Your task to perform on an android device: Clear all items from cart on bestbuy.com. Add razer blackwidow to the cart on bestbuy.com Image 0: 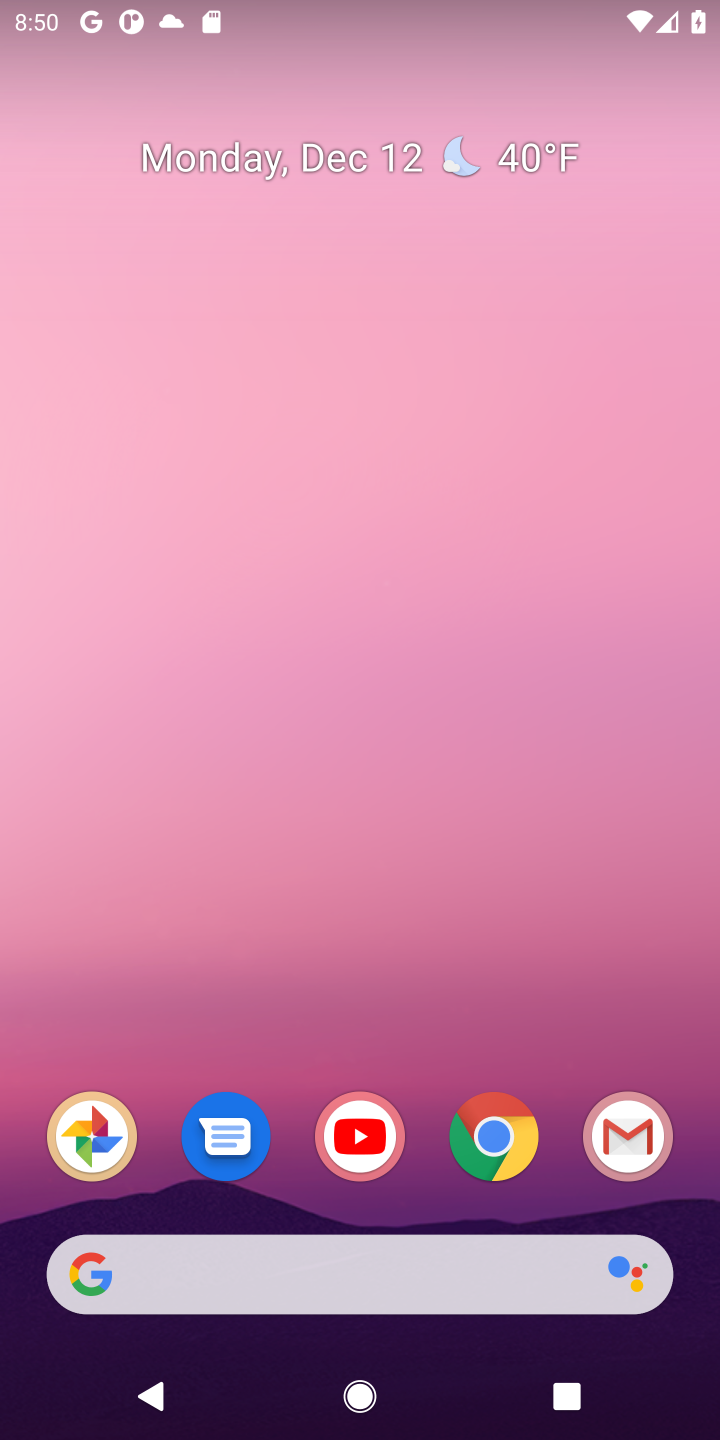
Step 0: click (492, 1150)
Your task to perform on an android device: Clear all items from cart on bestbuy.com. Add razer blackwidow to the cart on bestbuy.com Image 1: 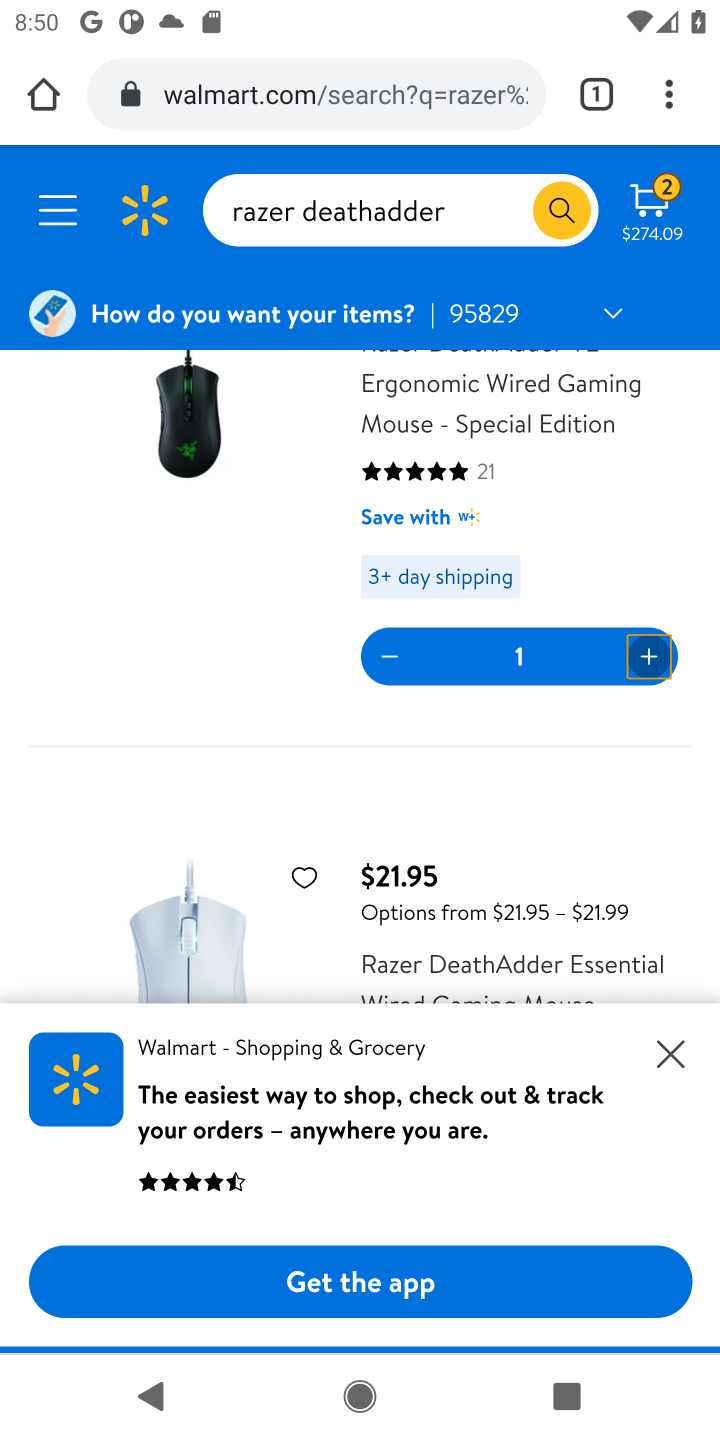
Step 1: click (317, 107)
Your task to perform on an android device: Clear all items from cart on bestbuy.com. Add razer blackwidow to the cart on bestbuy.com Image 2: 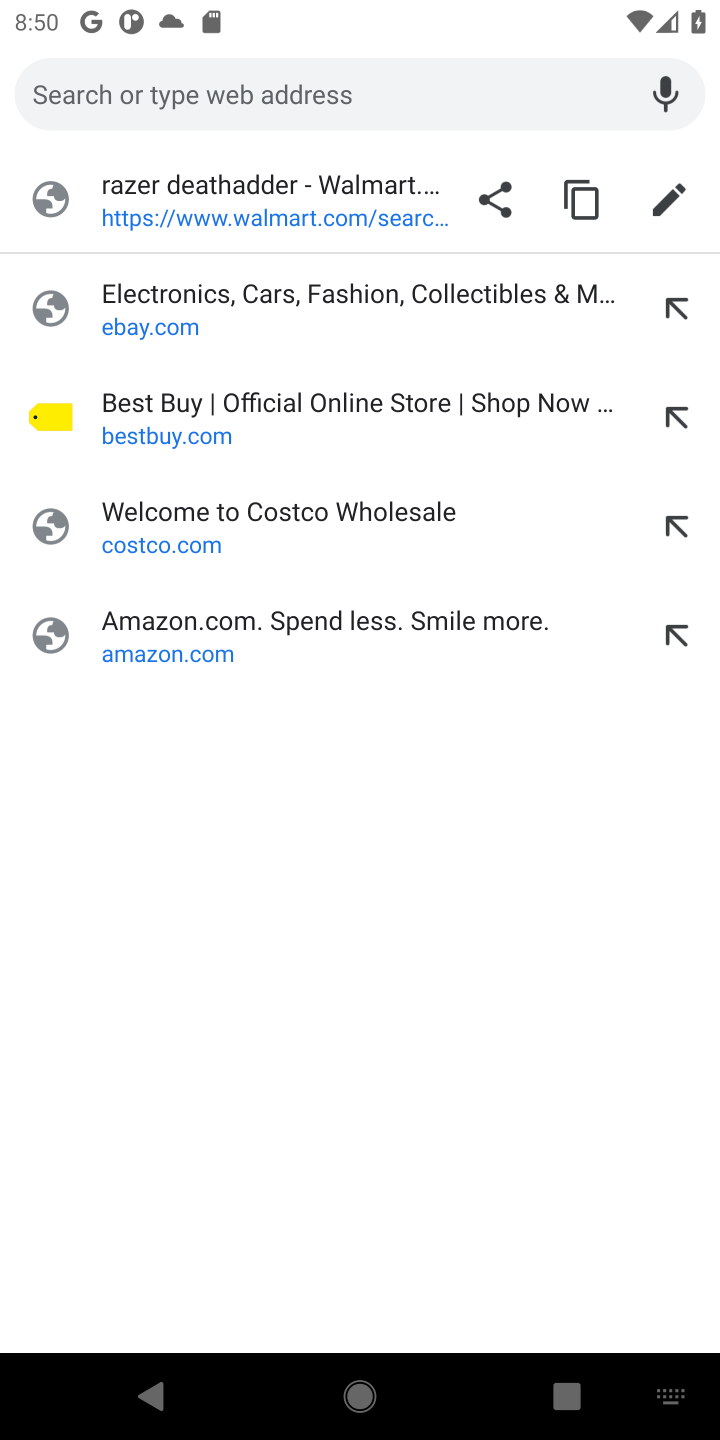
Step 2: click (147, 433)
Your task to perform on an android device: Clear all items from cart on bestbuy.com. Add razer blackwidow to the cart on bestbuy.com Image 3: 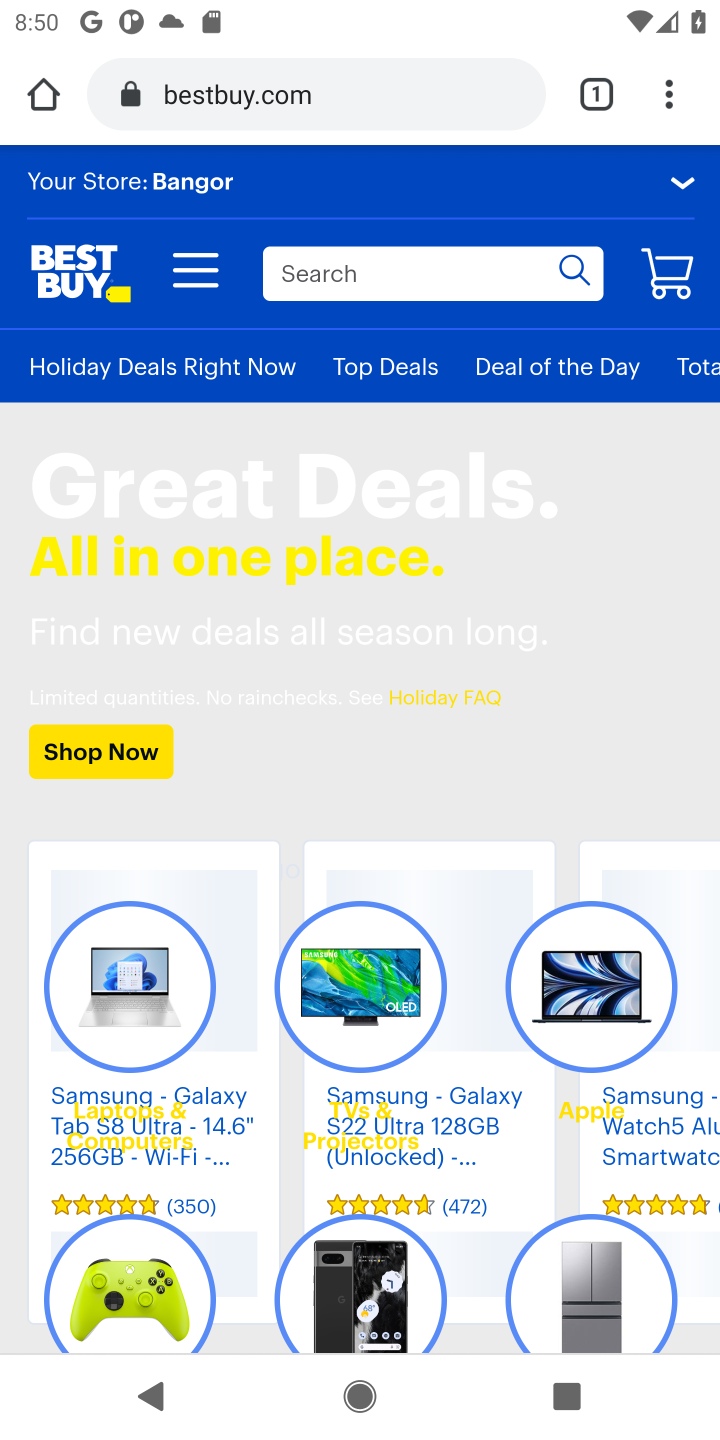
Step 3: click (671, 293)
Your task to perform on an android device: Clear all items from cart on bestbuy.com. Add razer blackwidow to the cart on bestbuy.com Image 4: 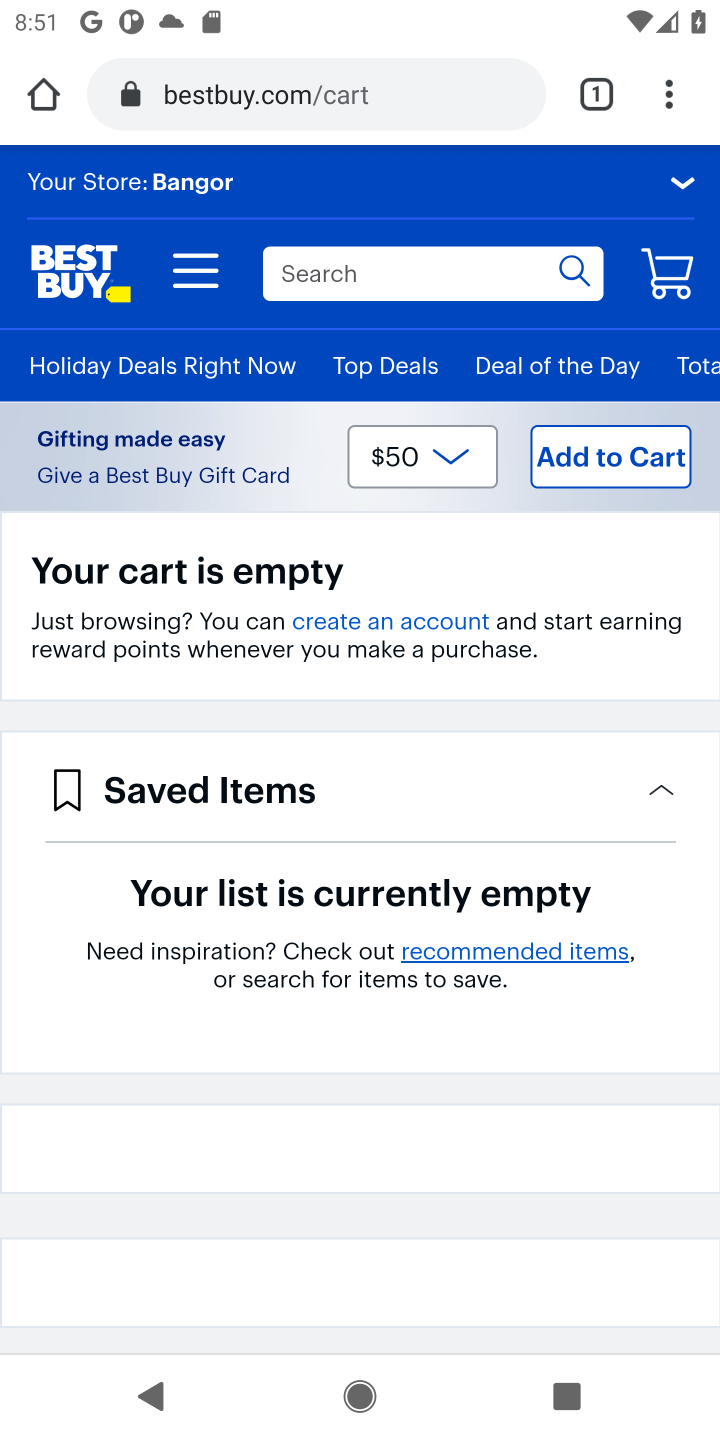
Step 4: click (341, 272)
Your task to perform on an android device: Clear all items from cart on bestbuy.com. Add razer blackwidow to the cart on bestbuy.com Image 5: 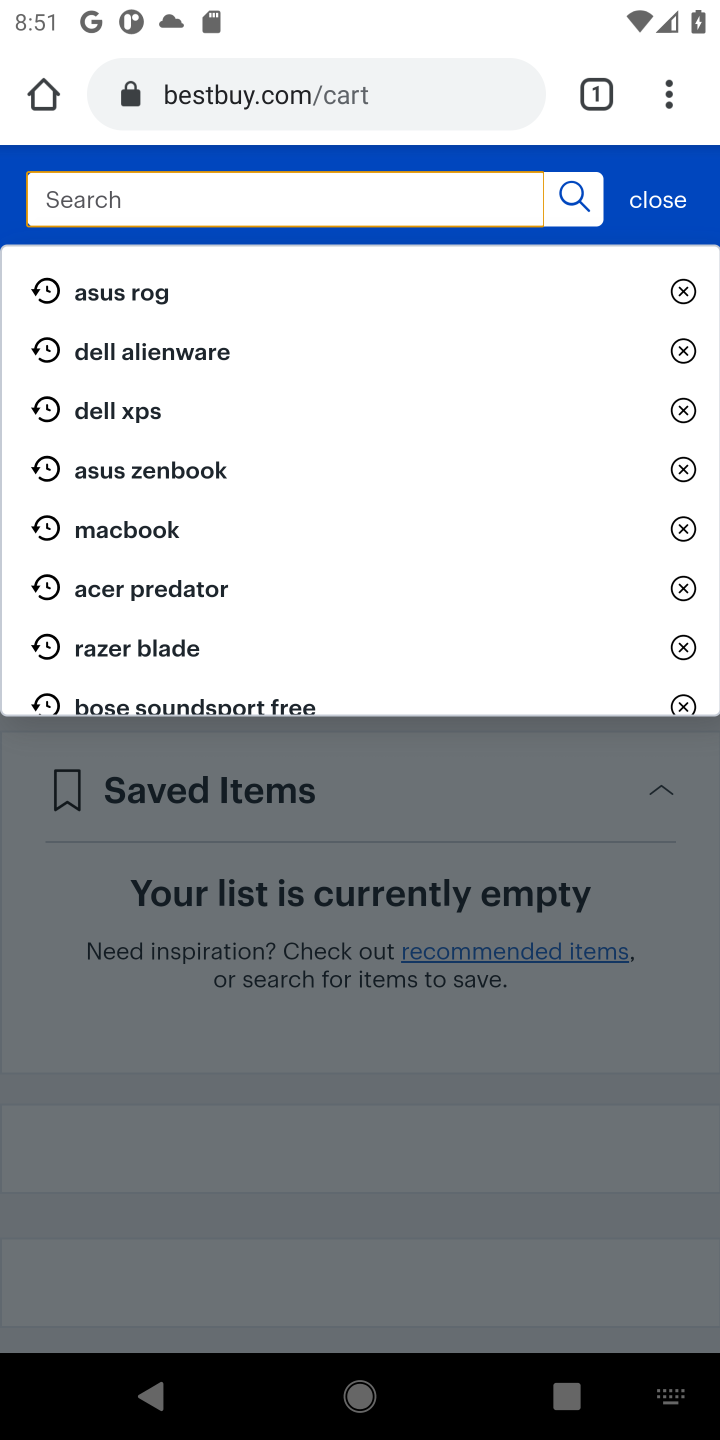
Step 5: type "razer blackwidow"
Your task to perform on an android device: Clear all items from cart on bestbuy.com. Add razer blackwidow to the cart on bestbuy.com Image 6: 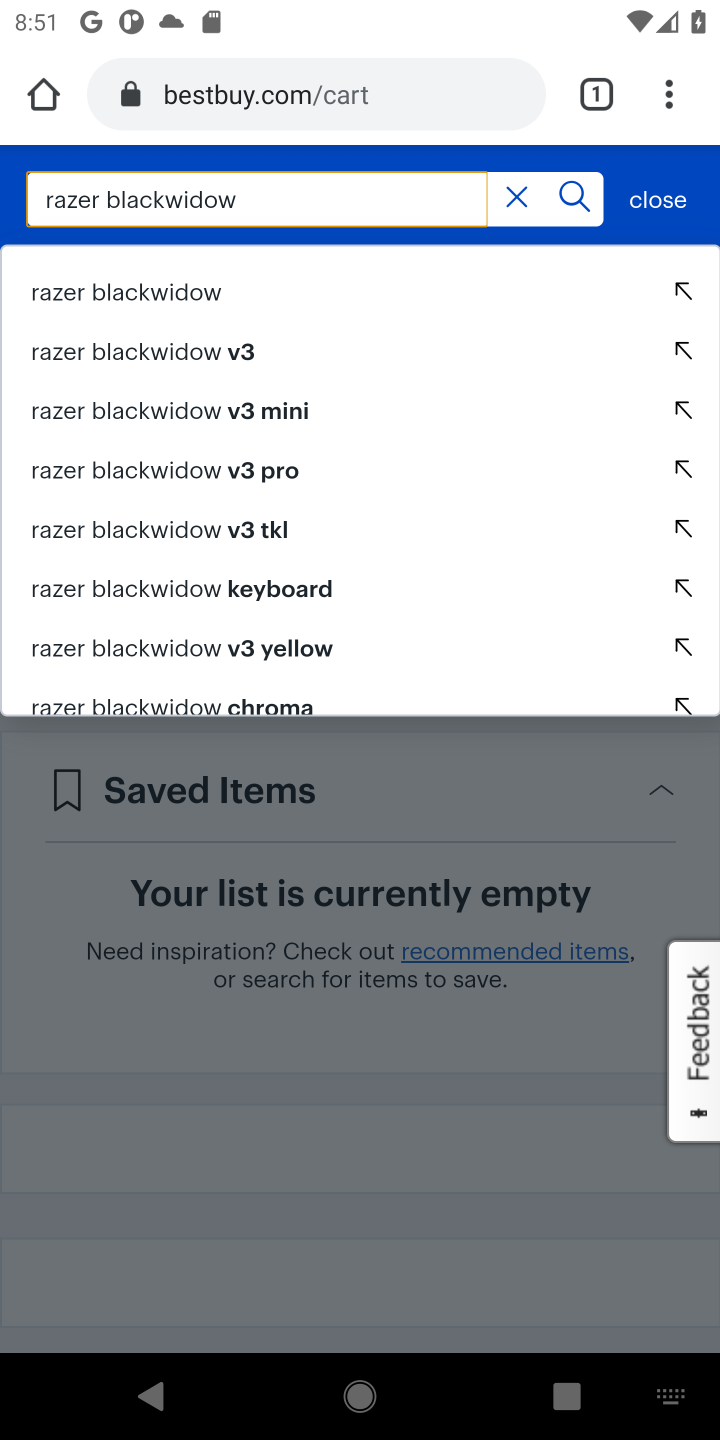
Step 6: click (138, 291)
Your task to perform on an android device: Clear all items from cart on bestbuy.com. Add razer blackwidow to the cart on bestbuy.com Image 7: 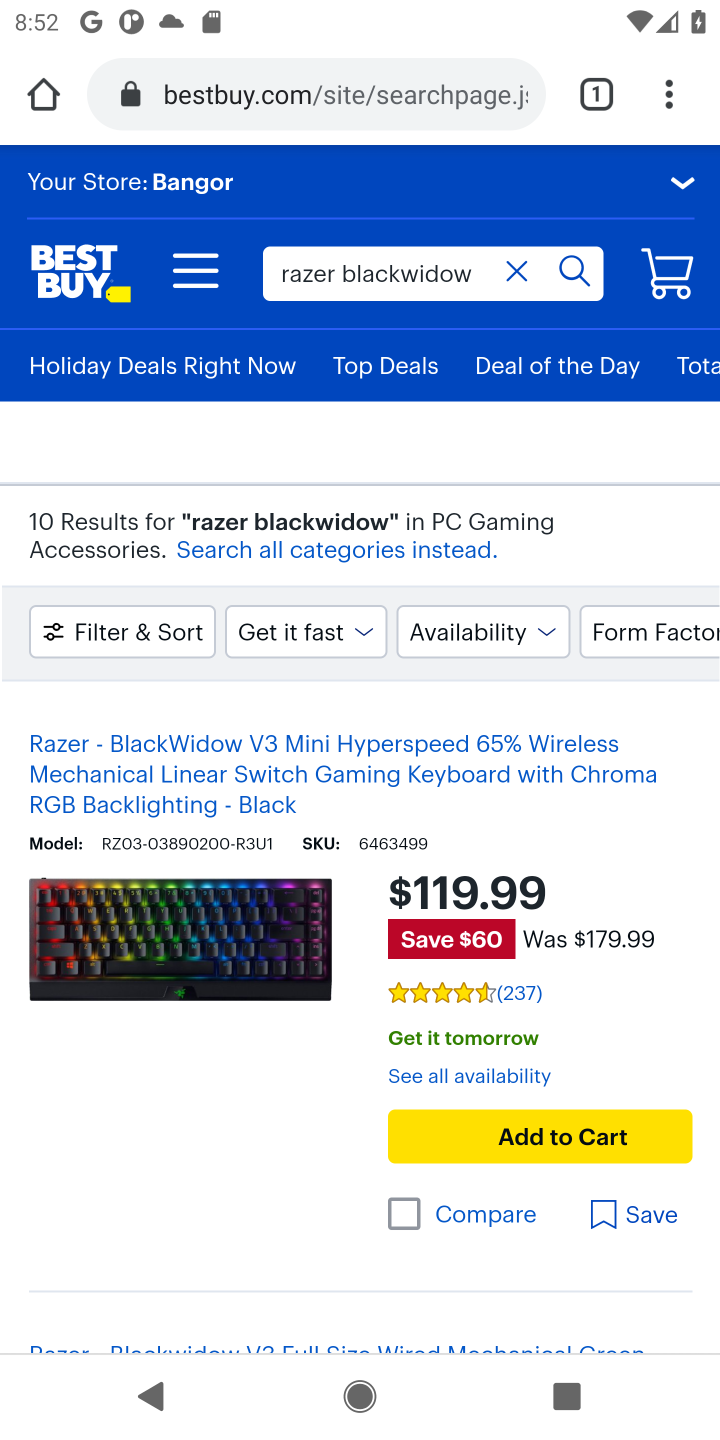
Step 7: click (477, 1049)
Your task to perform on an android device: Clear all items from cart on bestbuy.com. Add razer blackwidow to the cart on bestbuy.com Image 8: 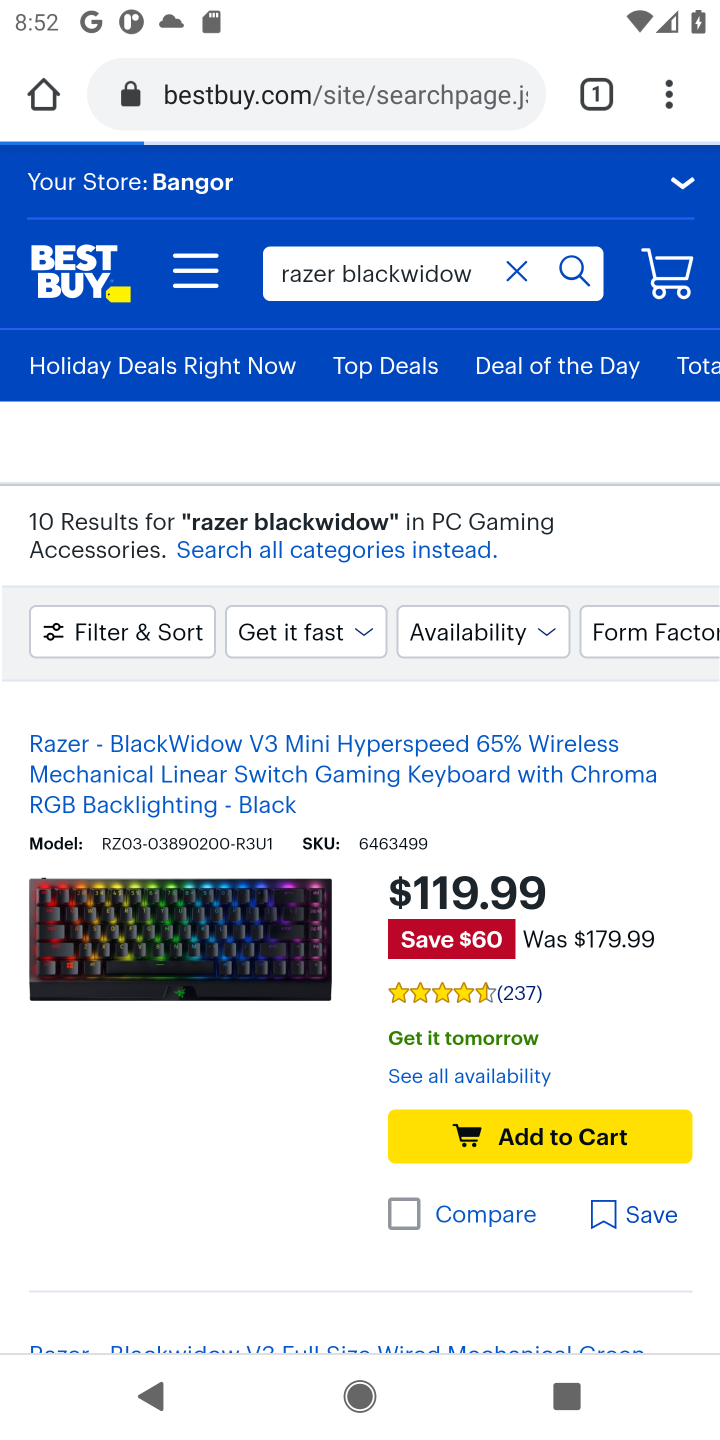
Step 8: click (459, 1189)
Your task to perform on an android device: Clear all items from cart on bestbuy.com. Add razer blackwidow to the cart on bestbuy.com Image 9: 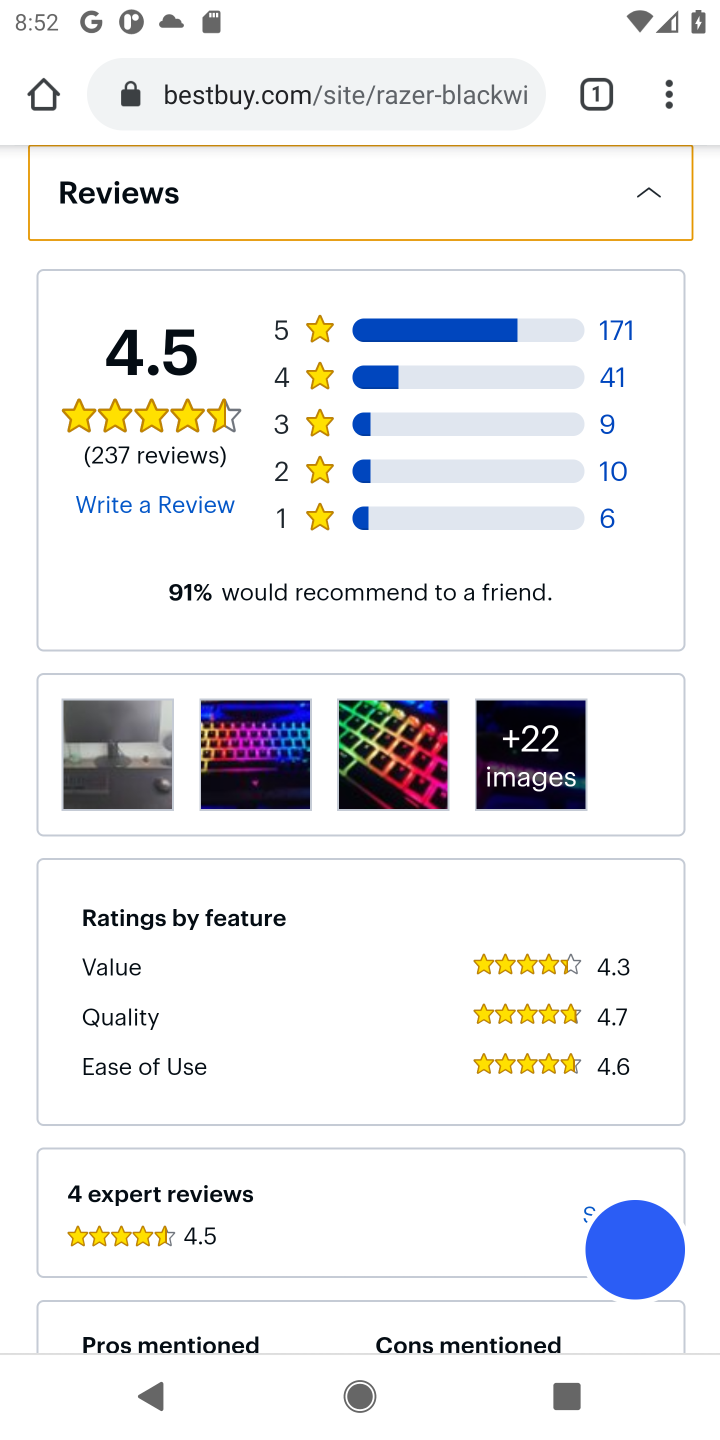
Step 9: press back button
Your task to perform on an android device: Clear all items from cart on bestbuy.com. Add razer blackwidow to the cart on bestbuy.com Image 10: 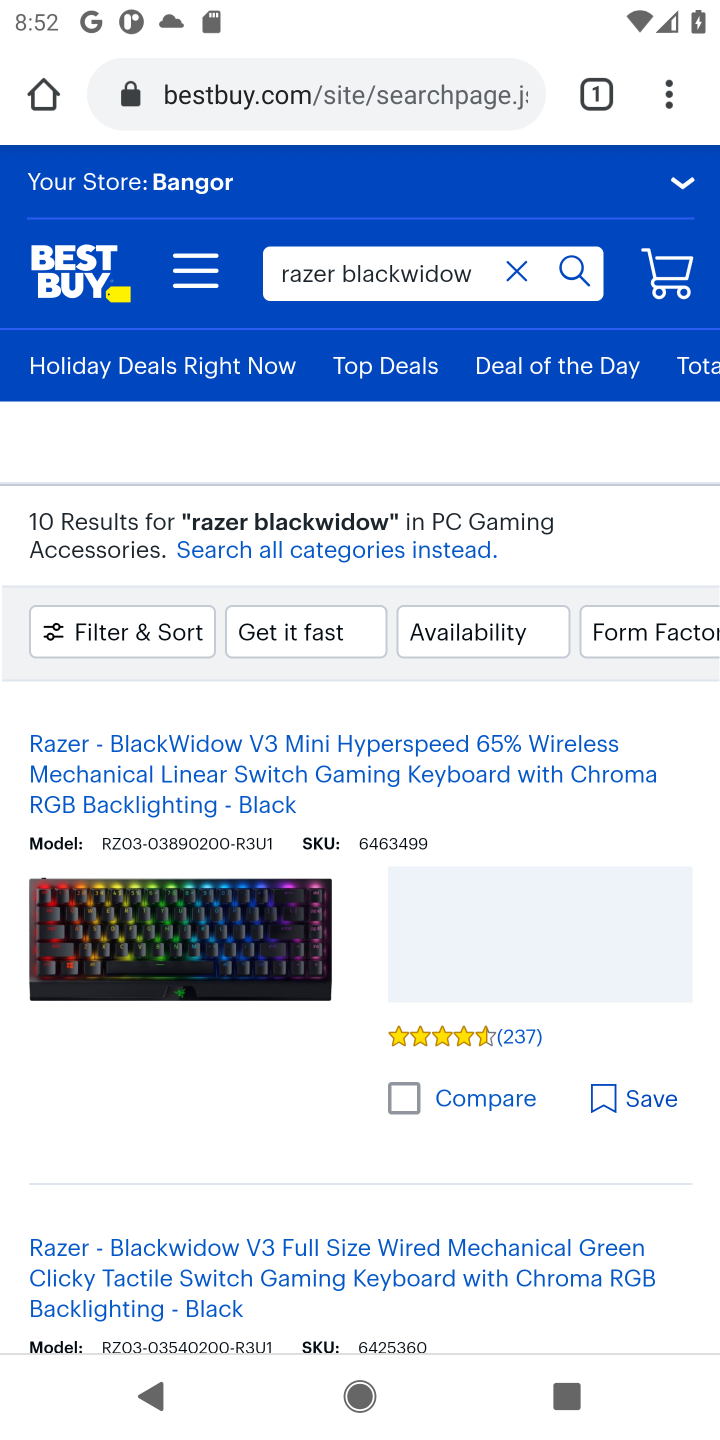
Step 10: drag from (284, 908) to (336, 547)
Your task to perform on an android device: Clear all items from cart on bestbuy.com. Add razer blackwidow to the cart on bestbuy.com Image 11: 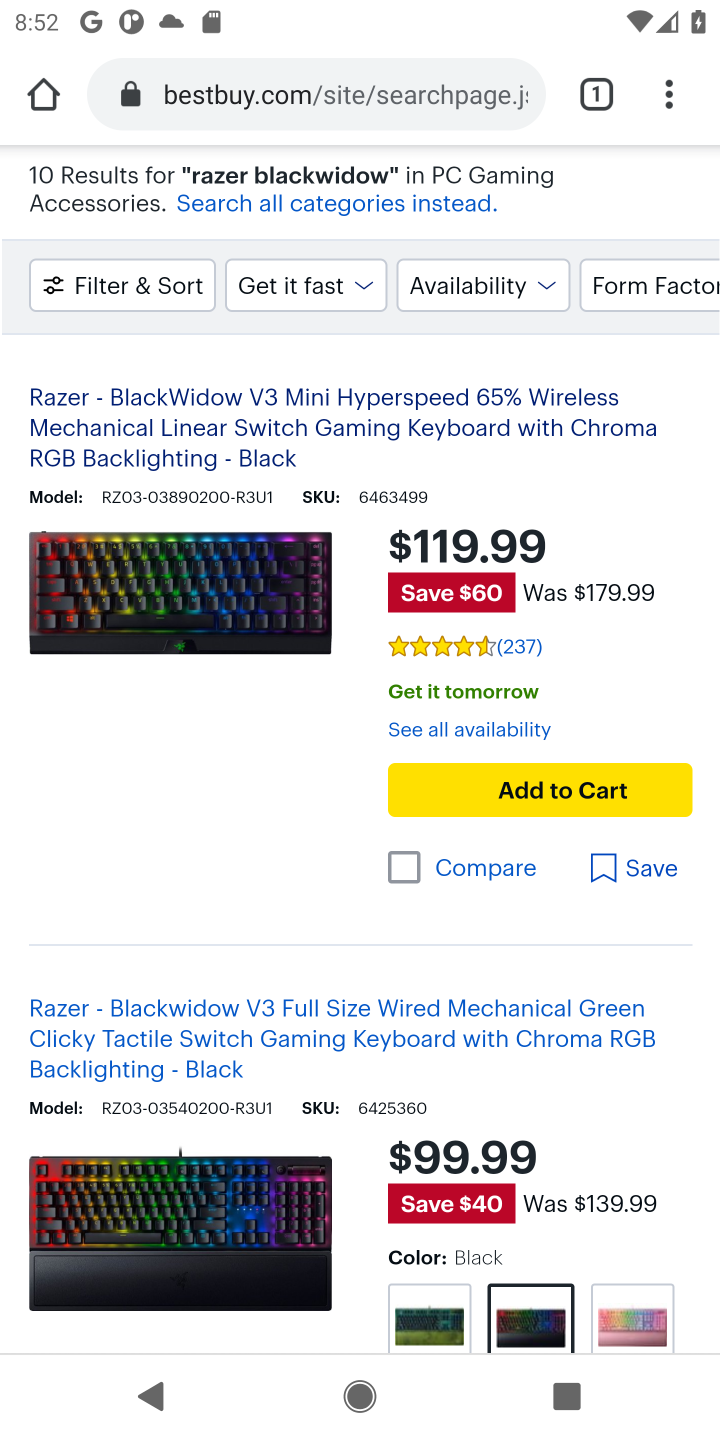
Step 11: click (467, 774)
Your task to perform on an android device: Clear all items from cart on bestbuy.com. Add razer blackwidow to the cart on bestbuy.com Image 12: 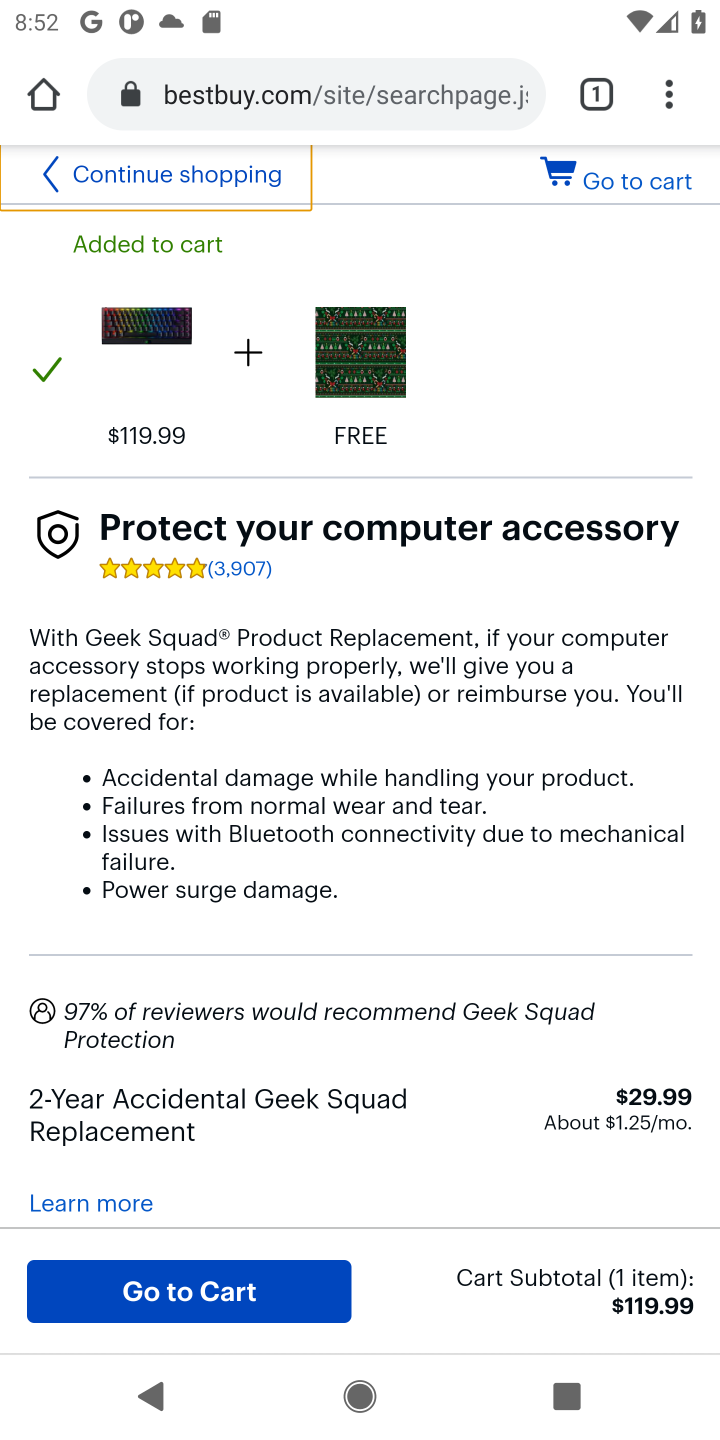
Step 12: task complete